Your task to perform on an android device: move an email to a new category in the gmail app Image 0: 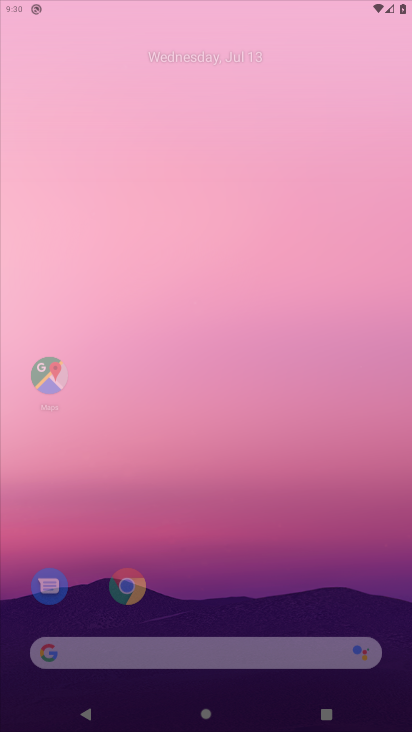
Step 0: click (41, 390)
Your task to perform on an android device: move an email to a new category in the gmail app Image 1: 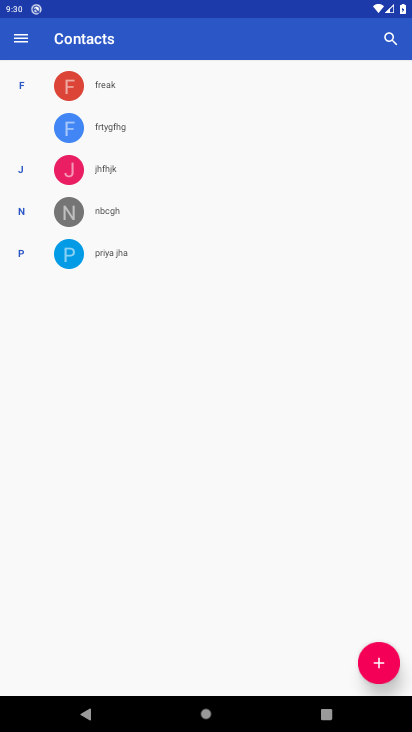
Step 1: press home button
Your task to perform on an android device: move an email to a new category in the gmail app Image 2: 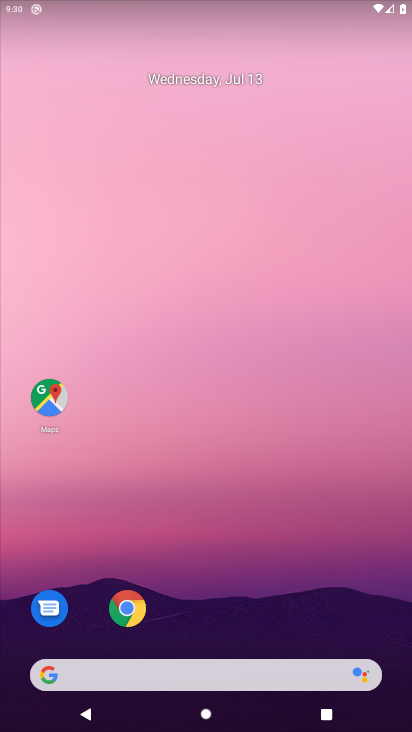
Step 2: drag from (20, 707) to (307, 15)
Your task to perform on an android device: move an email to a new category in the gmail app Image 3: 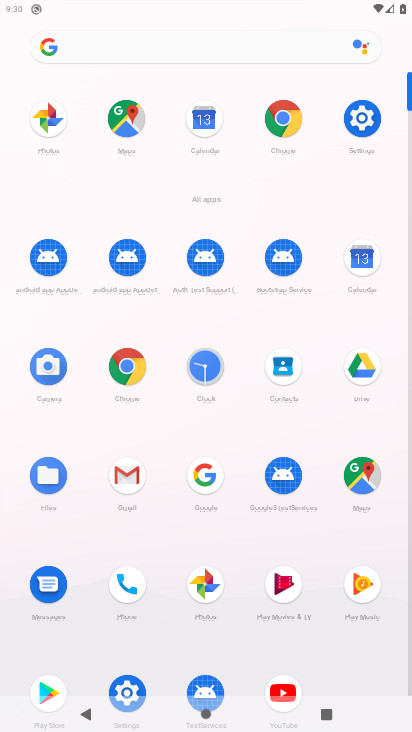
Step 3: click (129, 478)
Your task to perform on an android device: move an email to a new category in the gmail app Image 4: 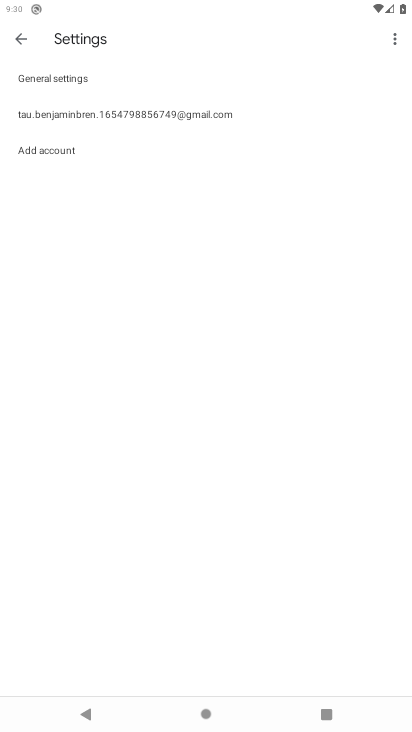
Step 4: click (11, 38)
Your task to perform on an android device: move an email to a new category in the gmail app Image 5: 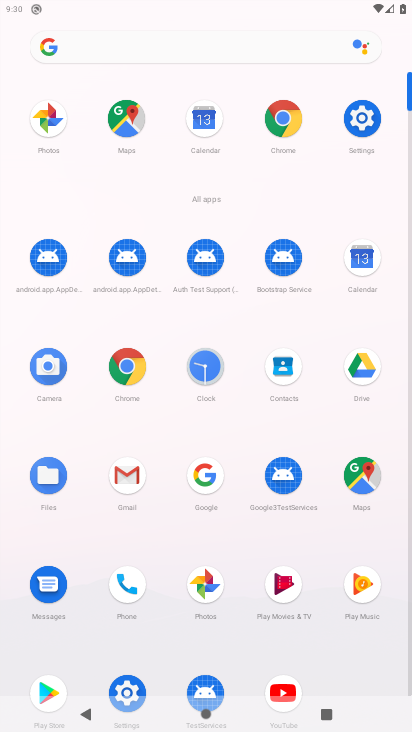
Step 5: click (124, 474)
Your task to perform on an android device: move an email to a new category in the gmail app Image 6: 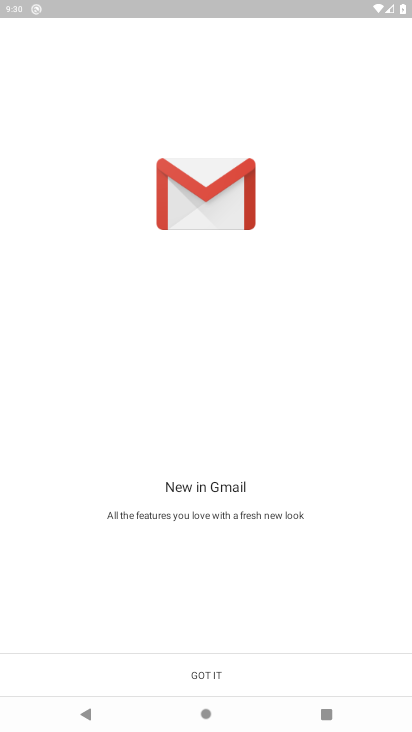
Step 6: click (176, 656)
Your task to perform on an android device: move an email to a new category in the gmail app Image 7: 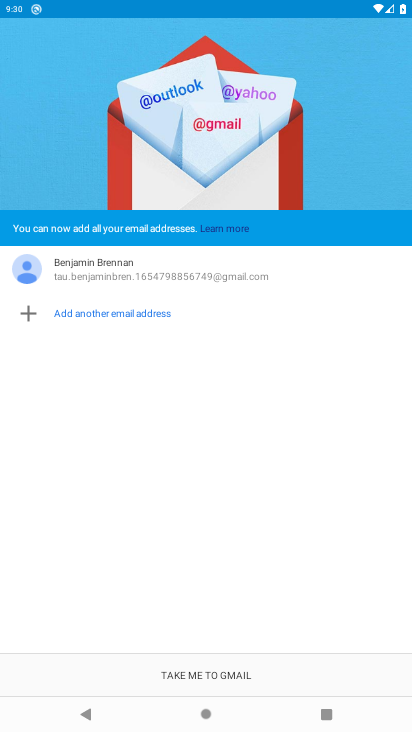
Step 7: click (176, 669)
Your task to perform on an android device: move an email to a new category in the gmail app Image 8: 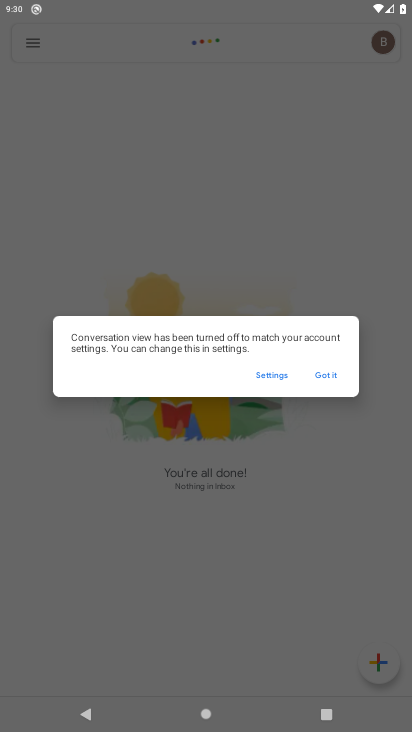
Step 8: click (327, 369)
Your task to perform on an android device: move an email to a new category in the gmail app Image 9: 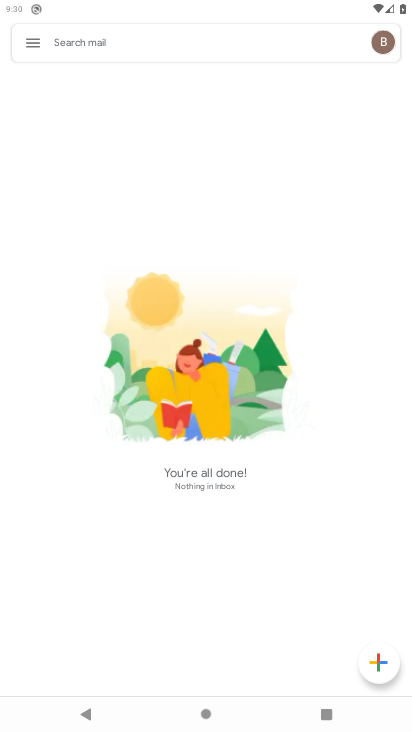
Step 9: task complete